Your task to perform on an android device: Open the calendar and show me this week's events? Image 0: 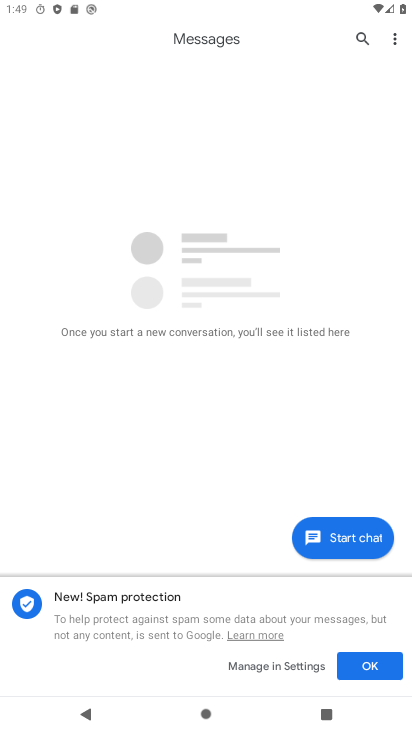
Step 0: press home button
Your task to perform on an android device: Open the calendar and show me this week's events? Image 1: 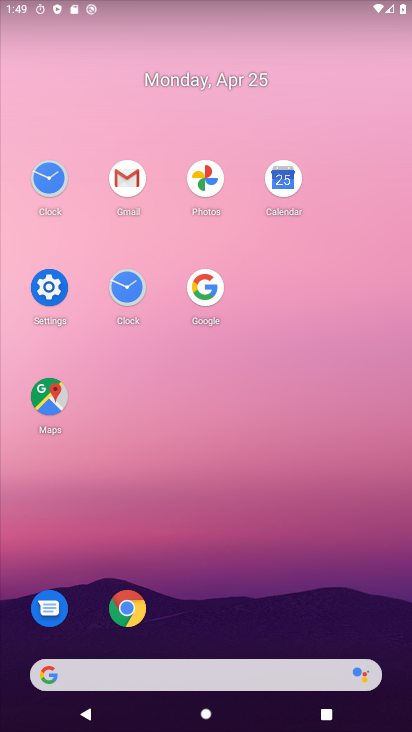
Step 1: click (282, 173)
Your task to perform on an android device: Open the calendar and show me this week's events? Image 2: 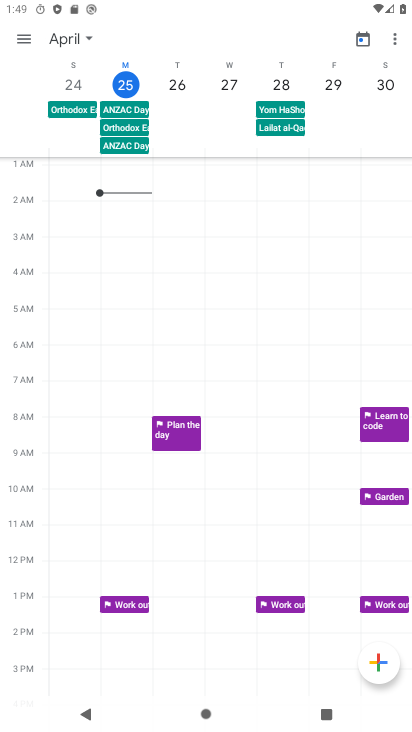
Step 2: task complete